Your task to perform on an android device: Open display settings Image 0: 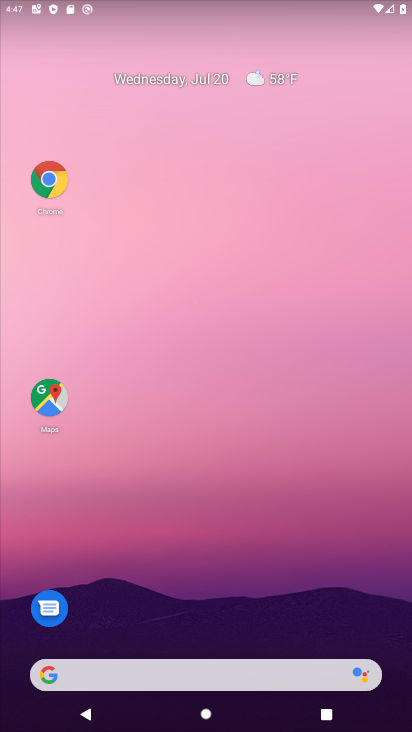
Step 0: drag from (235, 634) to (90, 7)
Your task to perform on an android device: Open display settings Image 1: 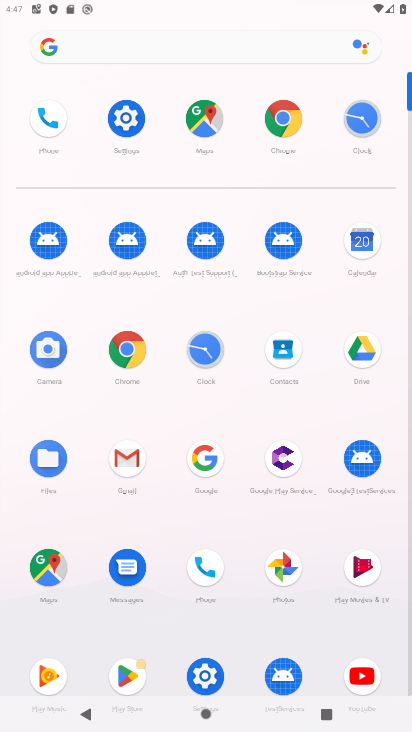
Step 1: click (119, 124)
Your task to perform on an android device: Open display settings Image 2: 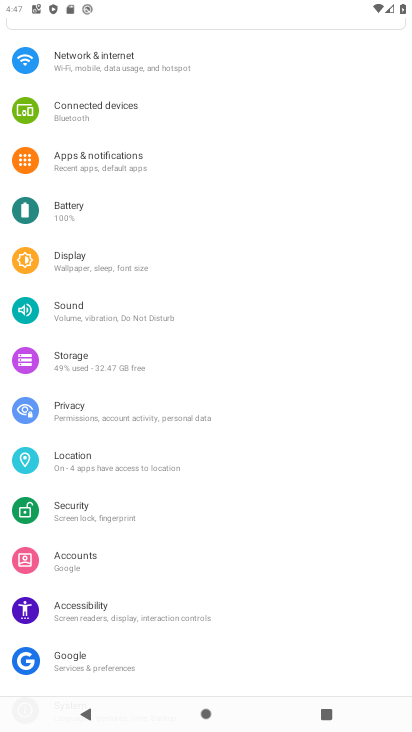
Step 2: click (73, 268)
Your task to perform on an android device: Open display settings Image 3: 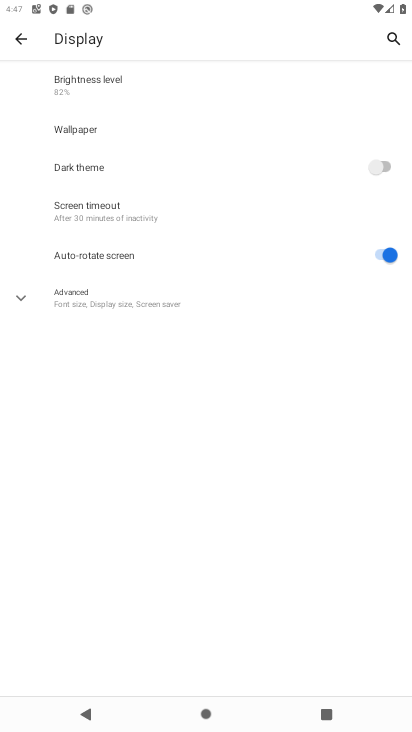
Step 3: task complete